Your task to perform on an android device: Go to network settings Image 0: 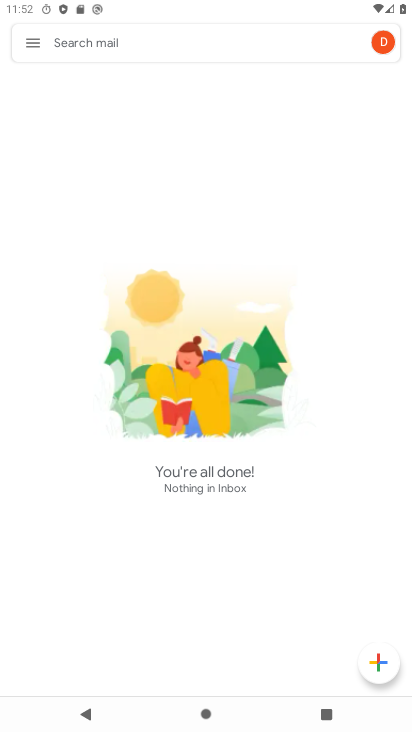
Step 0: press home button
Your task to perform on an android device: Go to network settings Image 1: 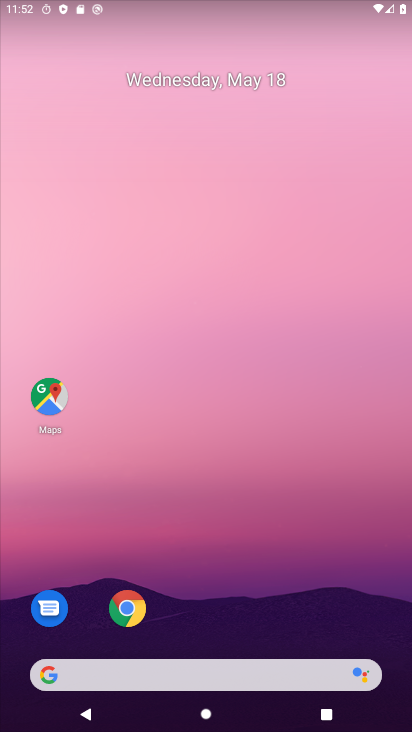
Step 1: drag from (274, 618) to (333, 32)
Your task to perform on an android device: Go to network settings Image 2: 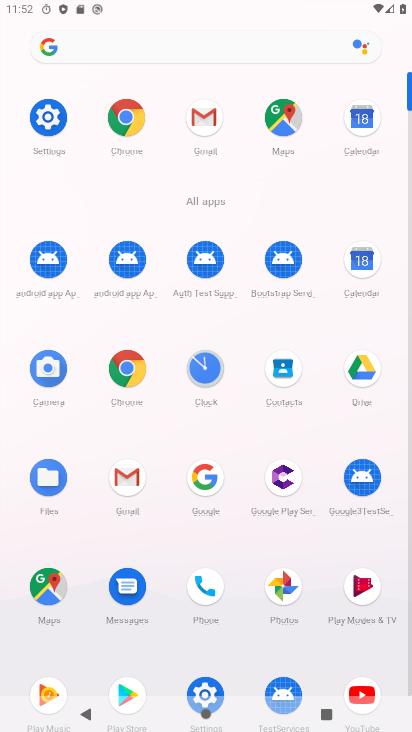
Step 2: click (50, 120)
Your task to perform on an android device: Go to network settings Image 3: 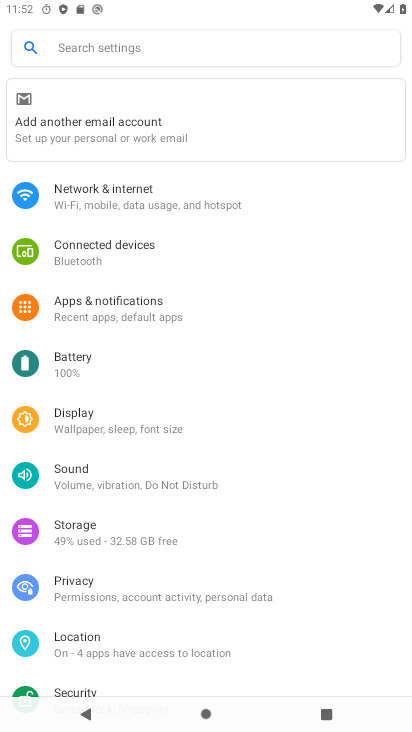
Step 3: click (109, 188)
Your task to perform on an android device: Go to network settings Image 4: 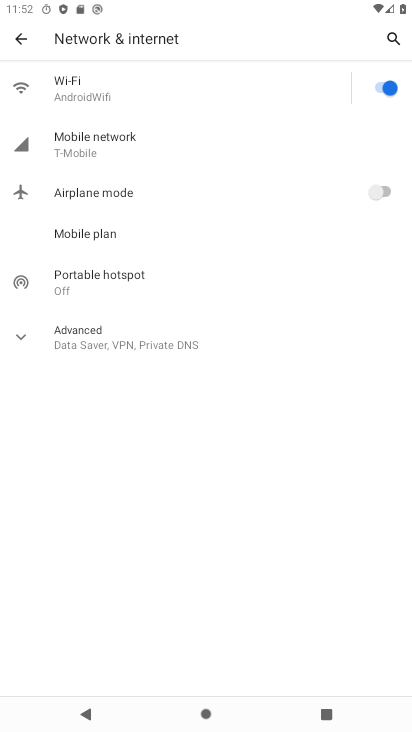
Step 4: task complete